Your task to perform on an android device: Show me recent news Image 0: 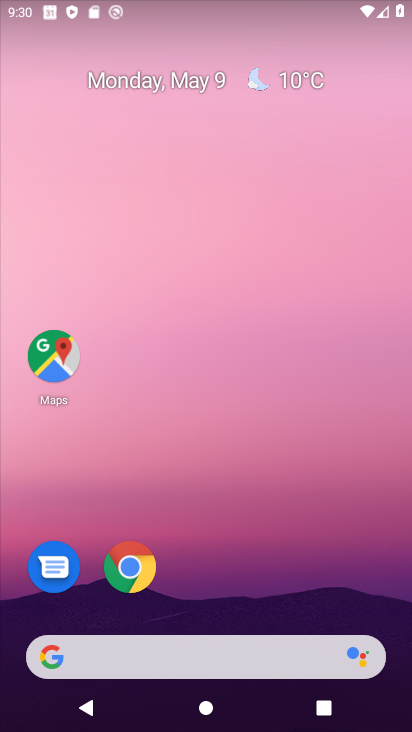
Step 0: click (246, 665)
Your task to perform on an android device: Show me recent news Image 1: 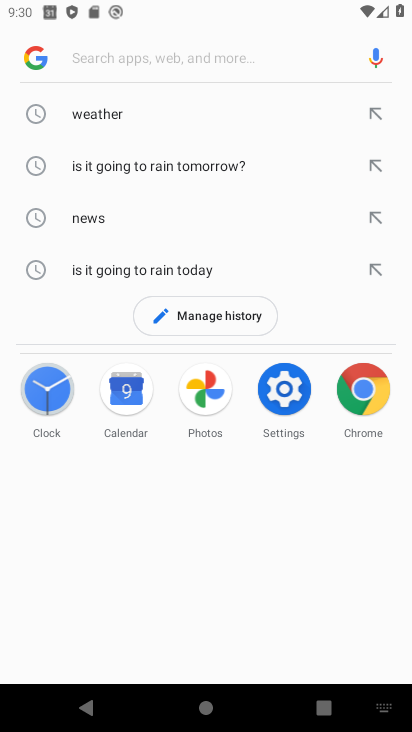
Step 1: click (72, 203)
Your task to perform on an android device: Show me recent news Image 2: 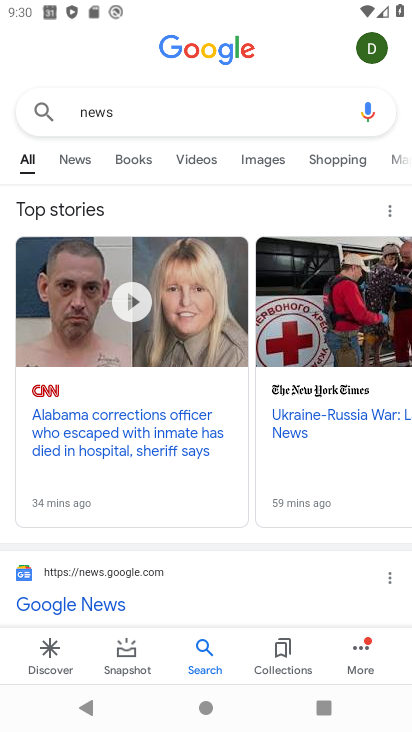
Step 2: click (68, 147)
Your task to perform on an android device: Show me recent news Image 3: 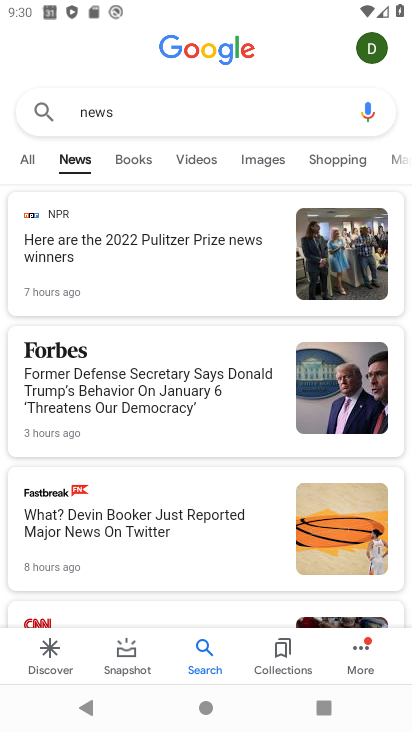
Step 3: task complete